Your task to perform on an android device: Show me popular videos on Youtube Image 0: 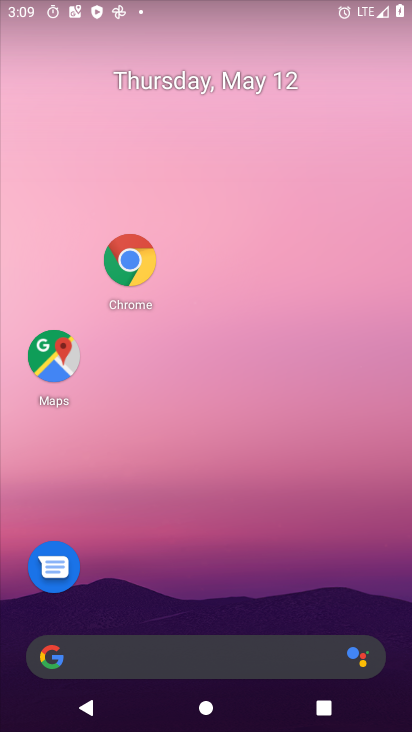
Step 0: drag from (213, 501) to (242, 295)
Your task to perform on an android device: Show me popular videos on Youtube Image 1: 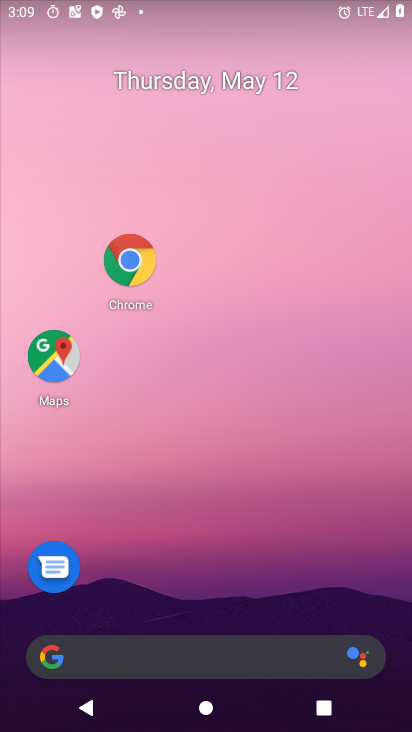
Step 1: drag from (228, 542) to (269, 122)
Your task to perform on an android device: Show me popular videos on Youtube Image 2: 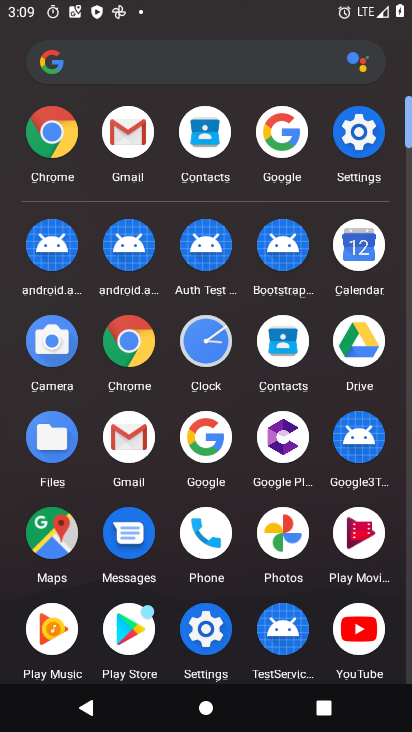
Step 2: click (346, 631)
Your task to perform on an android device: Show me popular videos on Youtube Image 3: 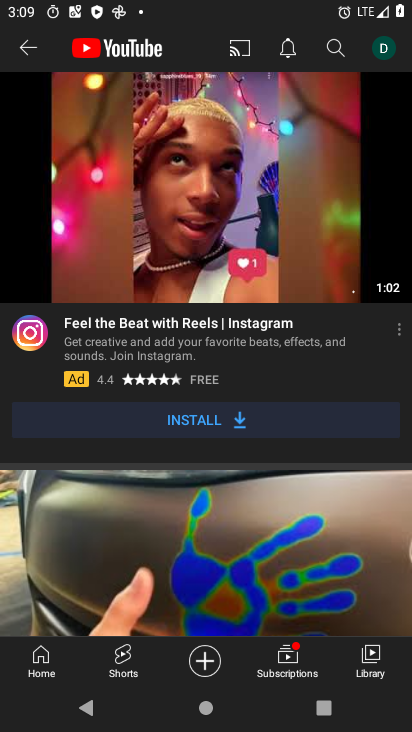
Step 3: task complete